Your task to perform on an android device: Turn off the flashlight Image 0: 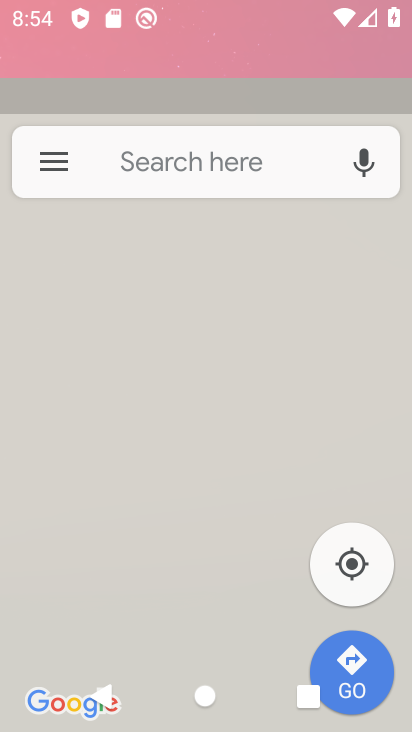
Step 0: press back button
Your task to perform on an android device: Turn off the flashlight Image 1: 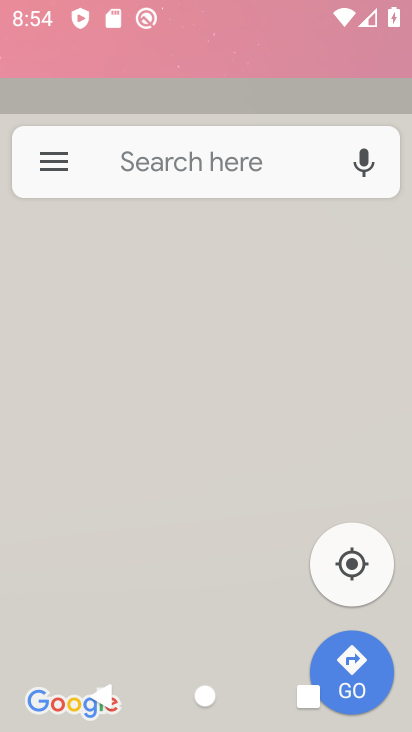
Step 1: click (346, 62)
Your task to perform on an android device: Turn off the flashlight Image 2: 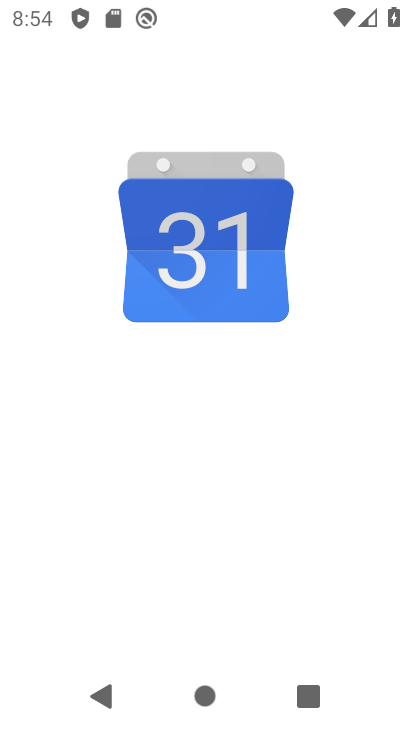
Step 2: drag from (171, 566) to (288, 42)
Your task to perform on an android device: Turn off the flashlight Image 3: 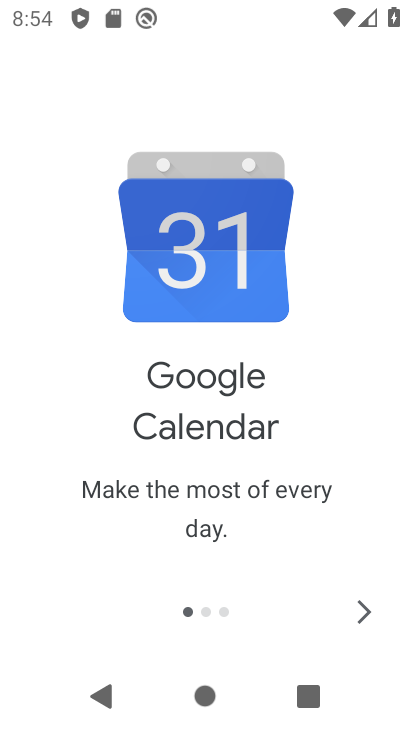
Step 3: press back button
Your task to perform on an android device: Turn off the flashlight Image 4: 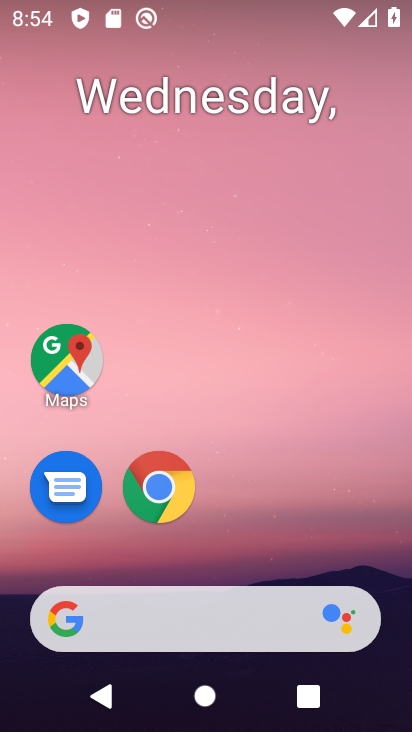
Step 4: drag from (310, 530) to (336, 7)
Your task to perform on an android device: Turn off the flashlight Image 5: 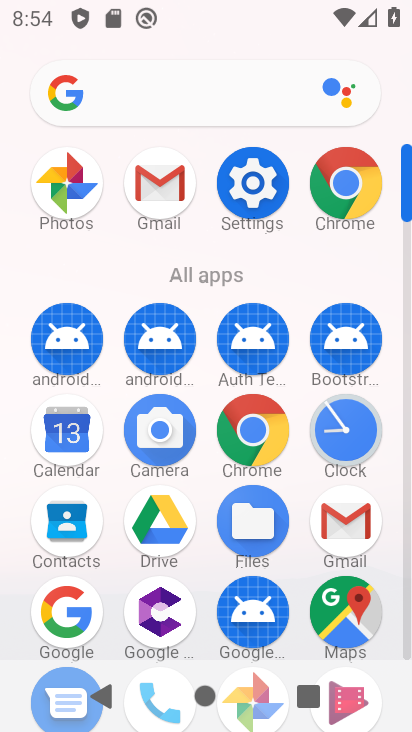
Step 5: click (244, 197)
Your task to perform on an android device: Turn off the flashlight Image 6: 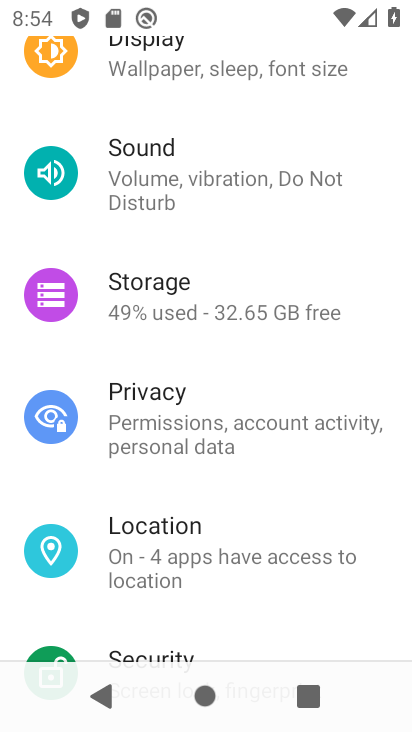
Step 6: drag from (204, 145) to (211, 684)
Your task to perform on an android device: Turn off the flashlight Image 7: 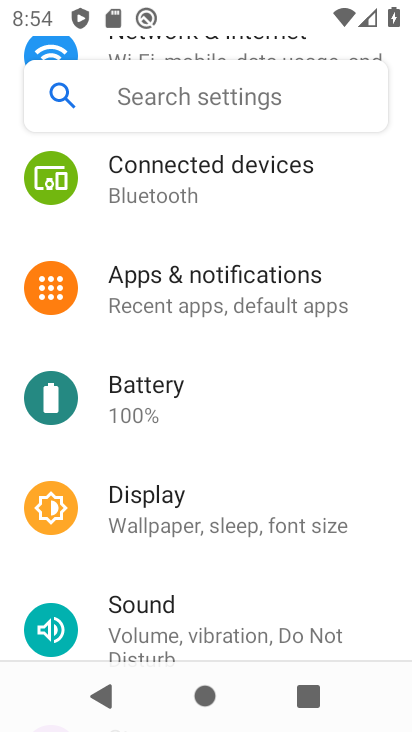
Step 7: click (206, 93)
Your task to perform on an android device: Turn off the flashlight Image 8: 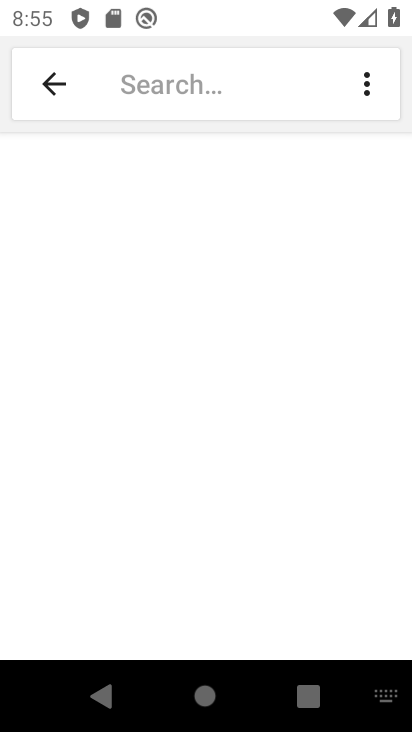
Step 8: type "flashlight"
Your task to perform on an android device: Turn off the flashlight Image 9: 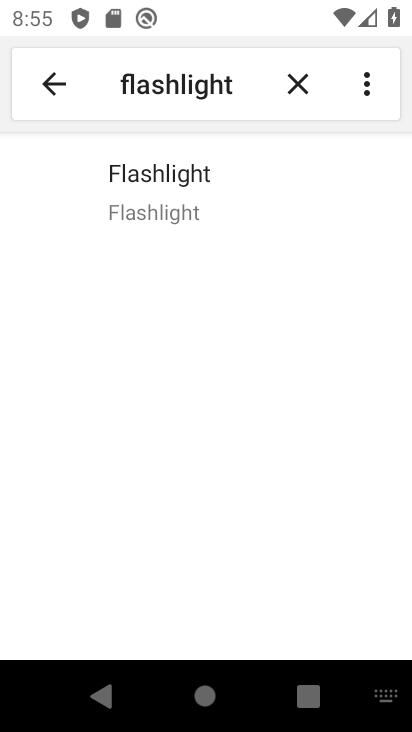
Step 9: click (118, 216)
Your task to perform on an android device: Turn off the flashlight Image 10: 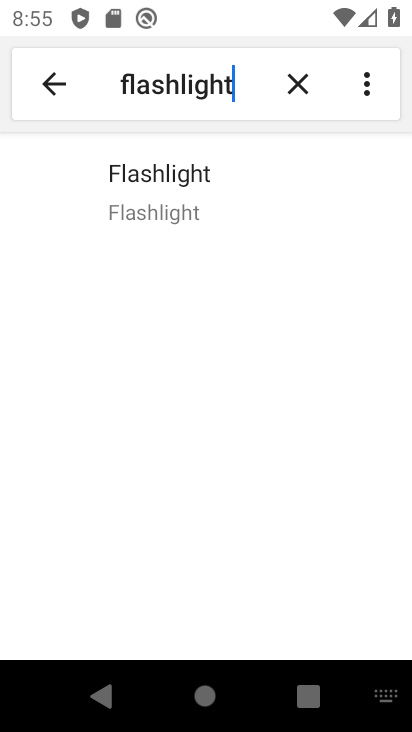
Step 10: task complete